Your task to perform on an android device: change notifications settings Image 0: 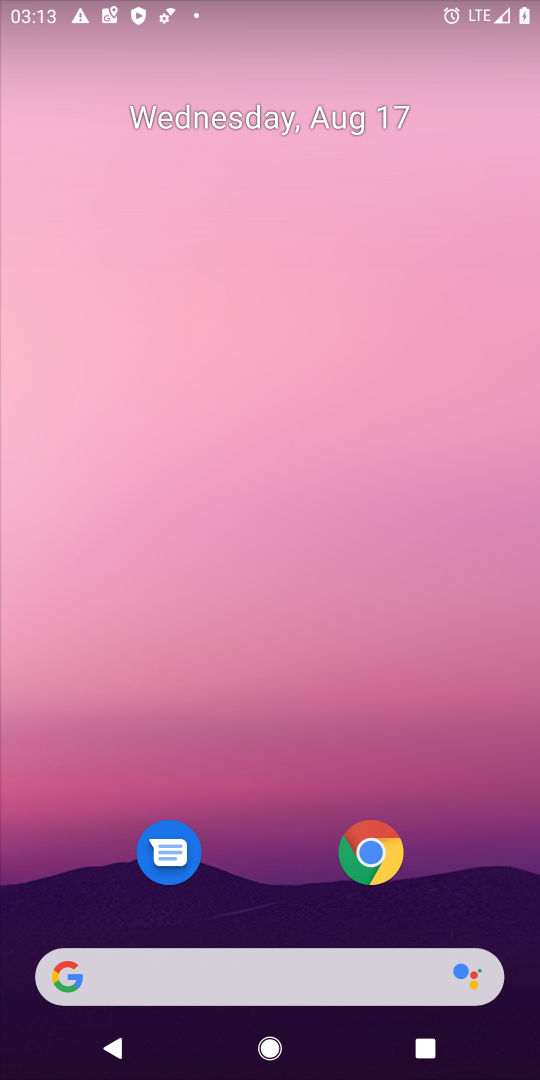
Step 0: drag from (269, 874) to (332, 64)
Your task to perform on an android device: change notifications settings Image 1: 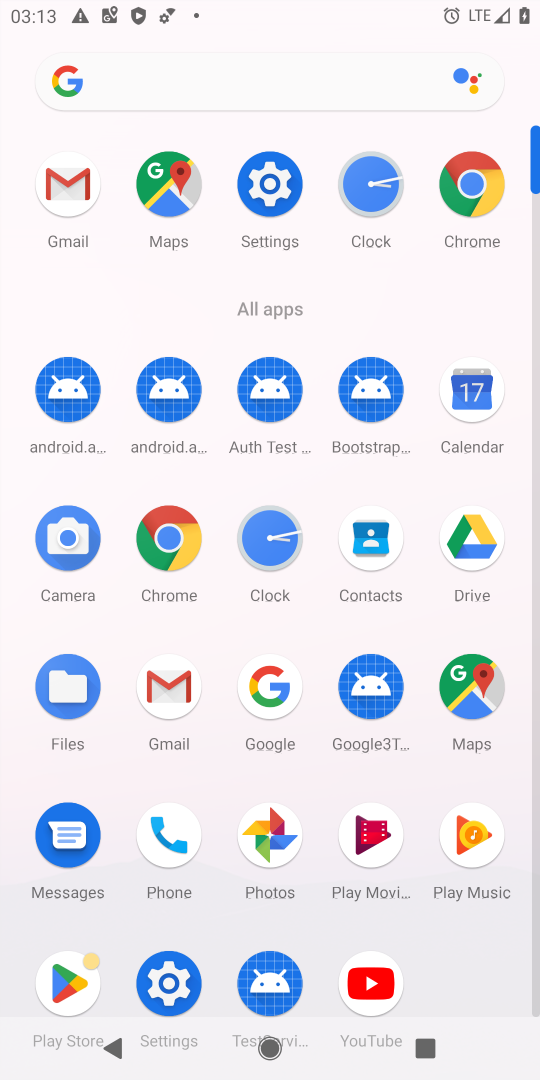
Step 1: click (161, 973)
Your task to perform on an android device: change notifications settings Image 2: 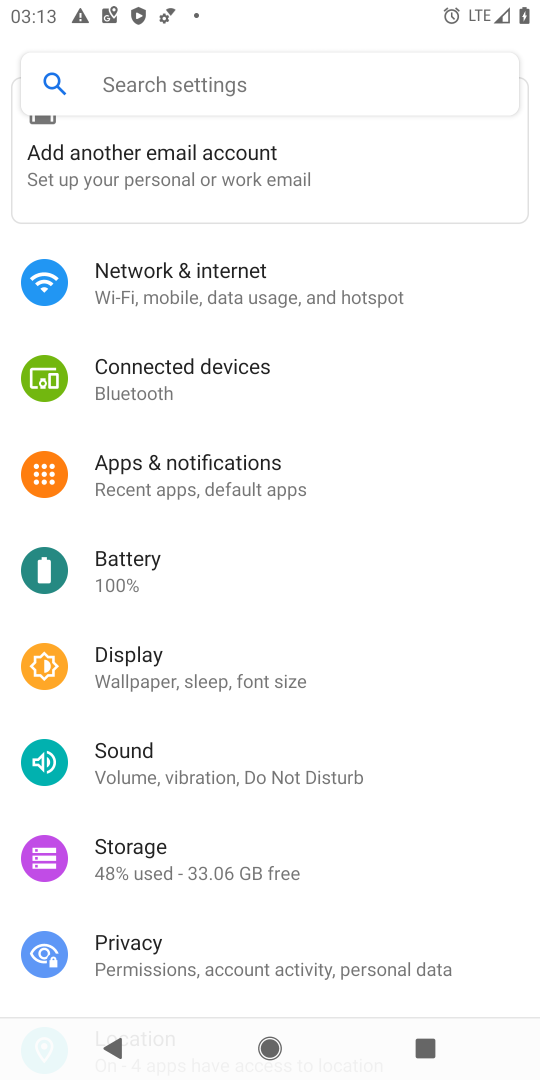
Step 2: click (189, 467)
Your task to perform on an android device: change notifications settings Image 3: 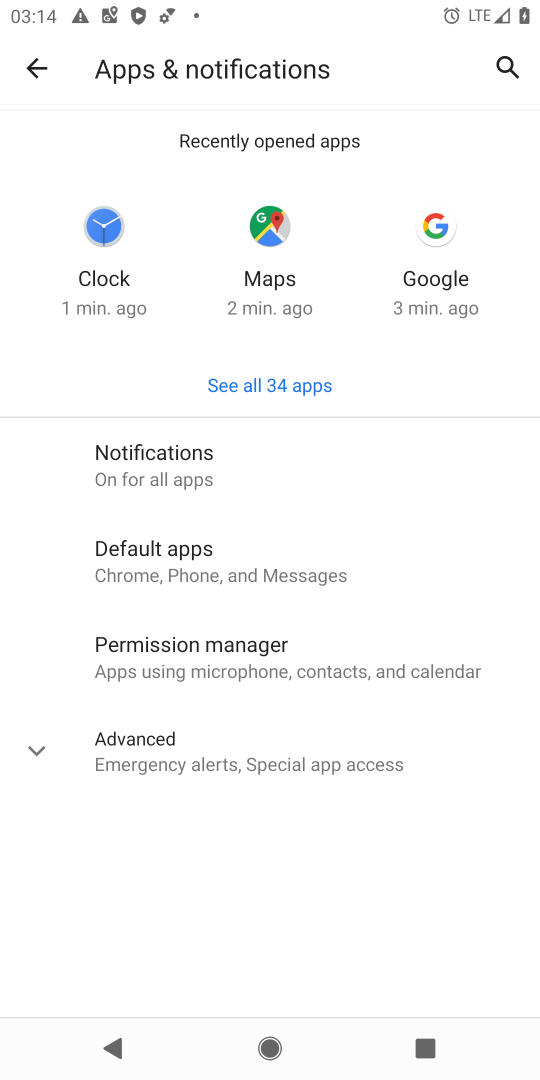
Step 3: click (213, 458)
Your task to perform on an android device: change notifications settings Image 4: 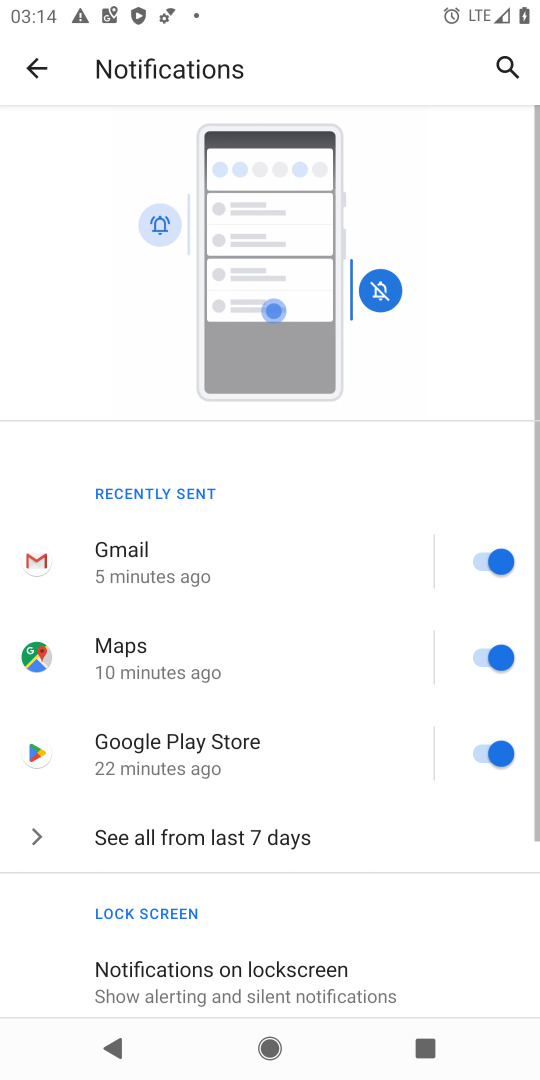
Step 4: task complete